Your task to perform on an android device: change the upload size in google photos Image 0: 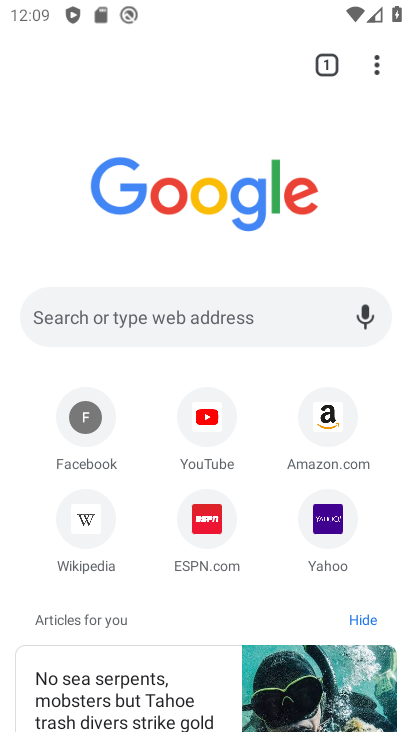
Step 0: press home button
Your task to perform on an android device: change the upload size in google photos Image 1: 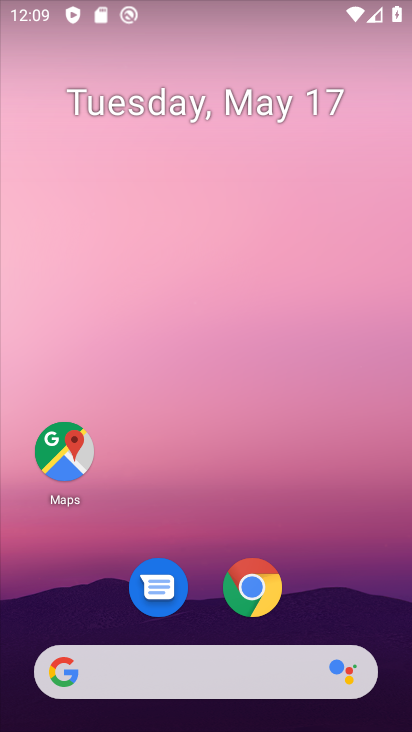
Step 1: drag from (201, 621) to (215, 40)
Your task to perform on an android device: change the upload size in google photos Image 2: 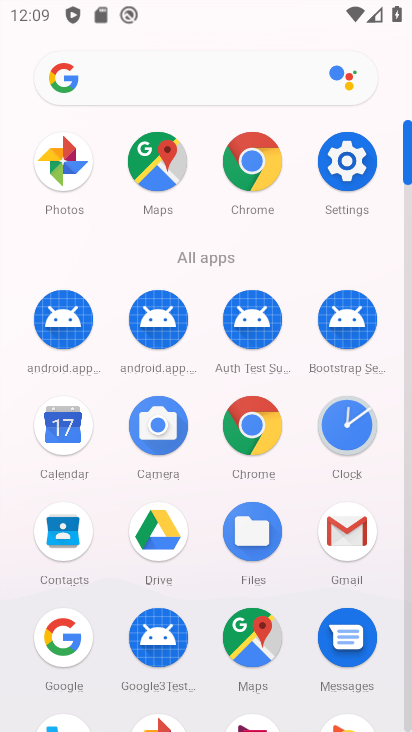
Step 2: drag from (204, 612) to (246, 234)
Your task to perform on an android device: change the upload size in google photos Image 3: 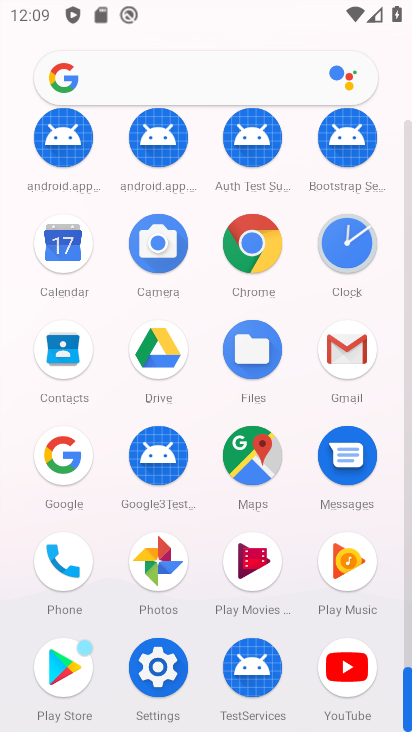
Step 3: click (175, 576)
Your task to perform on an android device: change the upload size in google photos Image 4: 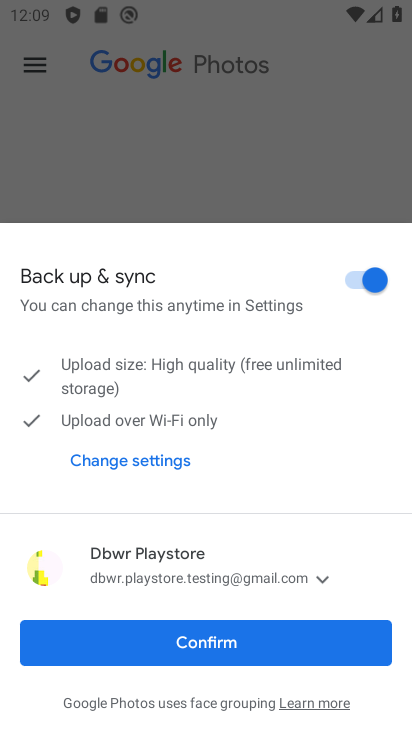
Step 4: click (197, 643)
Your task to perform on an android device: change the upload size in google photos Image 5: 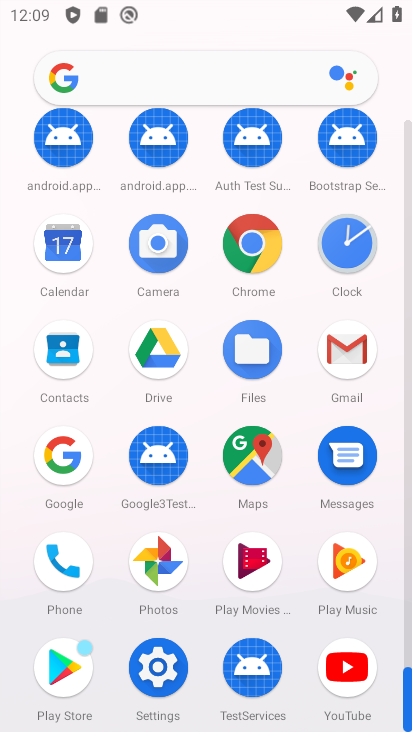
Step 5: click (152, 567)
Your task to perform on an android device: change the upload size in google photos Image 6: 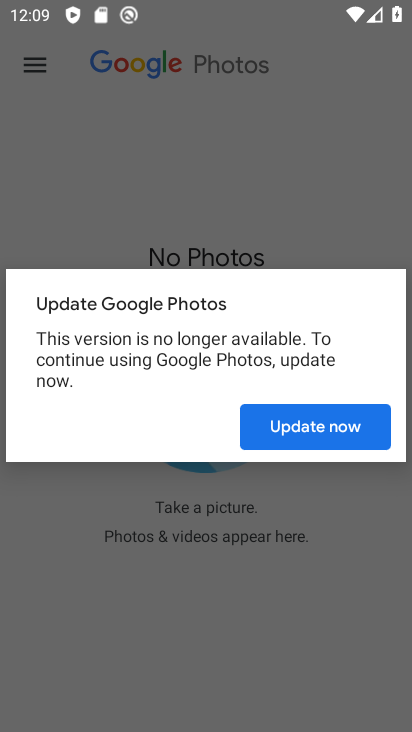
Step 6: click (259, 431)
Your task to perform on an android device: change the upload size in google photos Image 7: 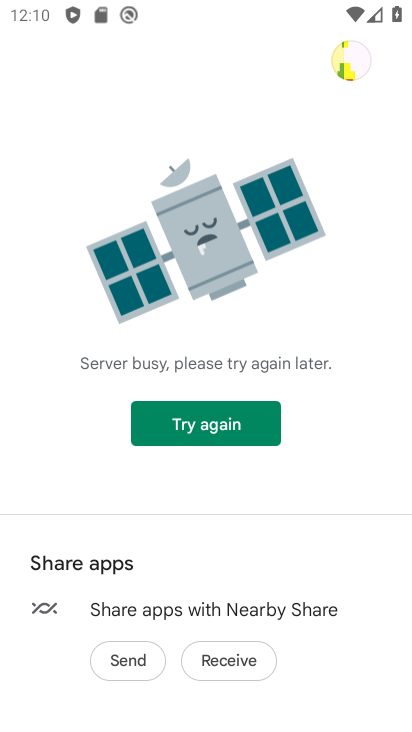
Step 7: click (232, 420)
Your task to perform on an android device: change the upload size in google photos Image 8: 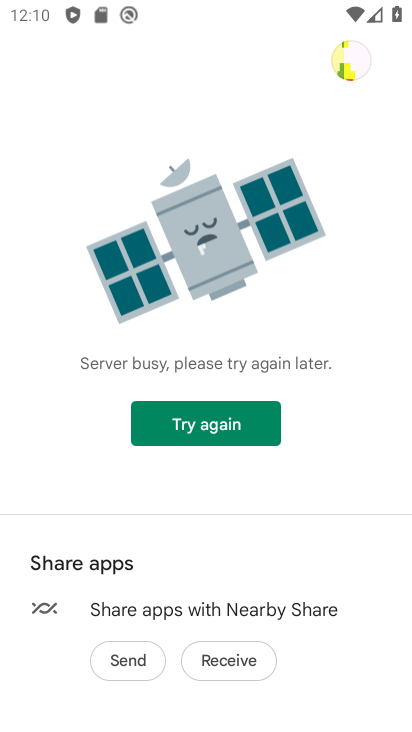
Step 8: press back button
Your task to perform on an android device: change the upload size in google photos Image 9: 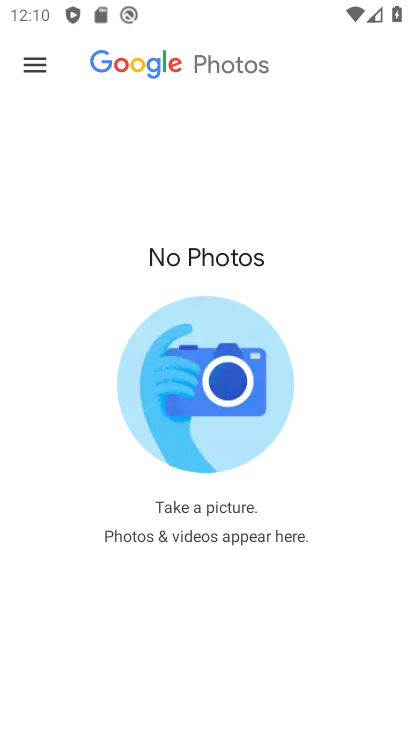
Step 9: click (25, 62)
Your task to perform on an android device: change the upload size in google photos Image 10: 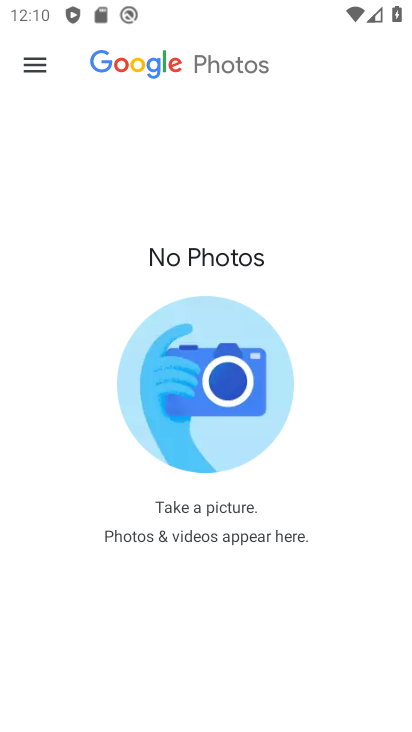
Step 10: click (31, 69)
Your task to perform on an android device: change the upload size in google photos Image 11: 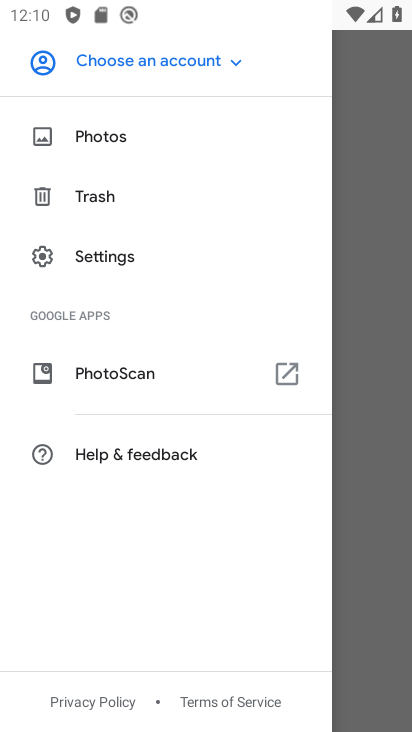
Step 11: click (111, 261)
Your task to perform on an android device: change the upload size in google photos Image 12: 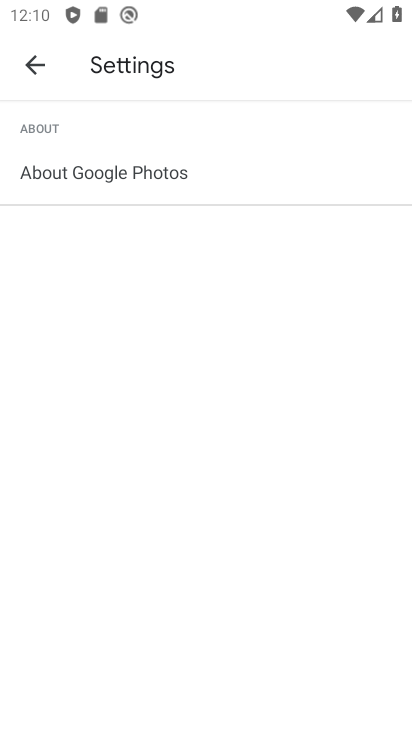
Step 12: click (33, 60)
Your task to perform on an android device: change the upload size in google photos Image 13: 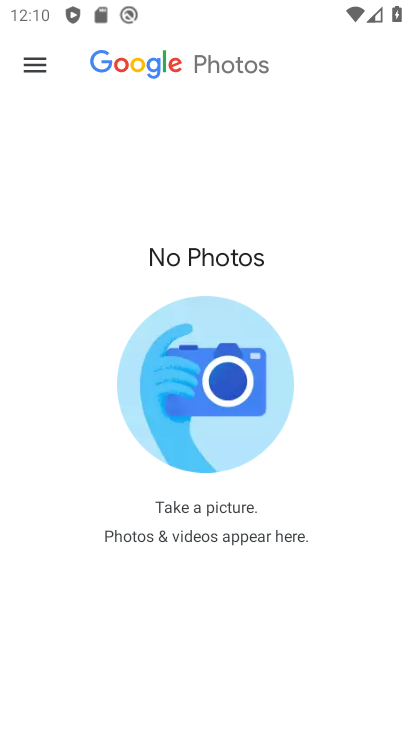
Step 13: click (33, 60)
Your task to perform on an android device: change the upload size in google photos Image 14: 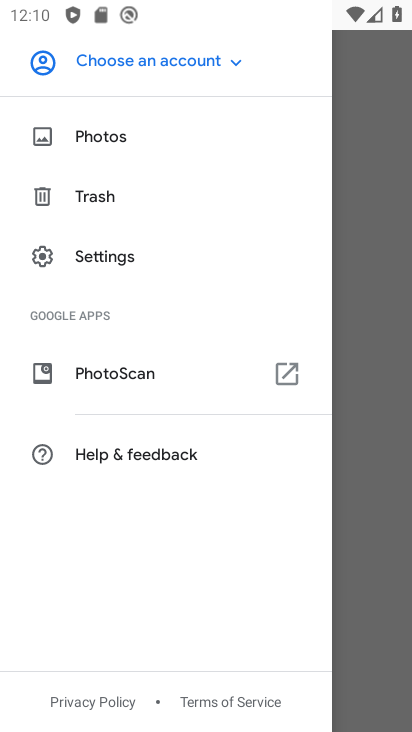
Step 14: click (138, 64)
Your task to perform on an android device: change the upload size in google photos Image 15: 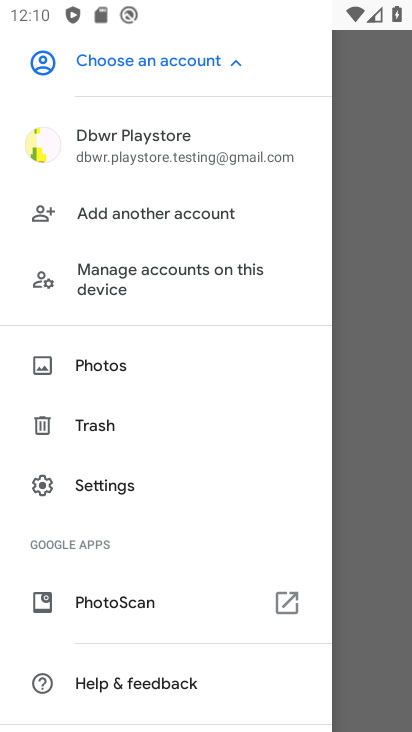
Step 15: click (126, 148)
Your task to perform on an android device: change the upload size in google photos Image 16: 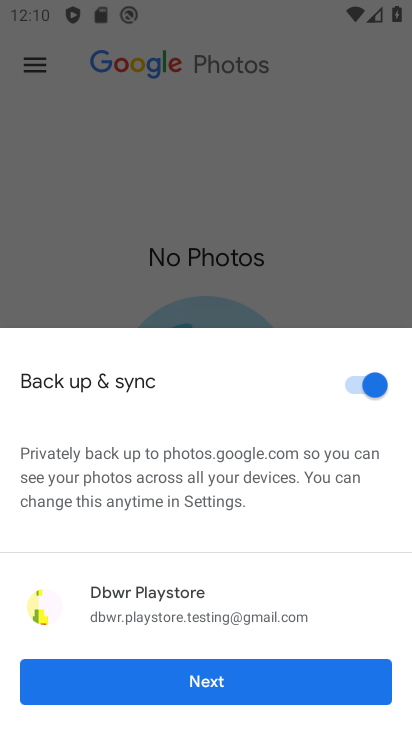
Step 16: click (186, 669)
Your task to perform on an android device: change the upload size in google photos Image 17: 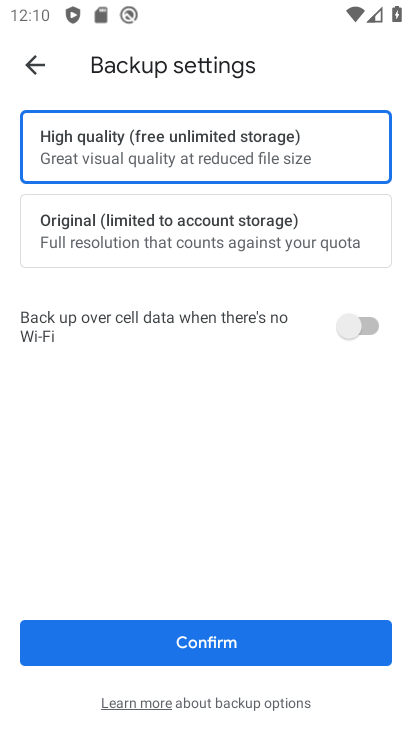
Step 17: click (191, 655)
Your task to perform on an android device: change the upload size in google photos Image 18: 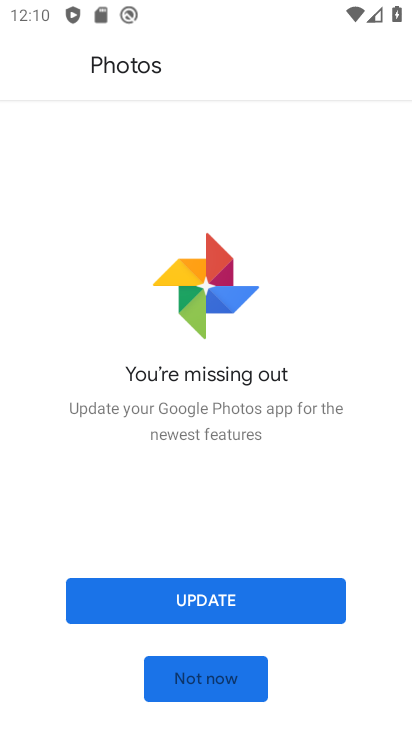
Step 18: click (239, 670)
Your task to perform on an android device: change the upload size in google photos Image 19: 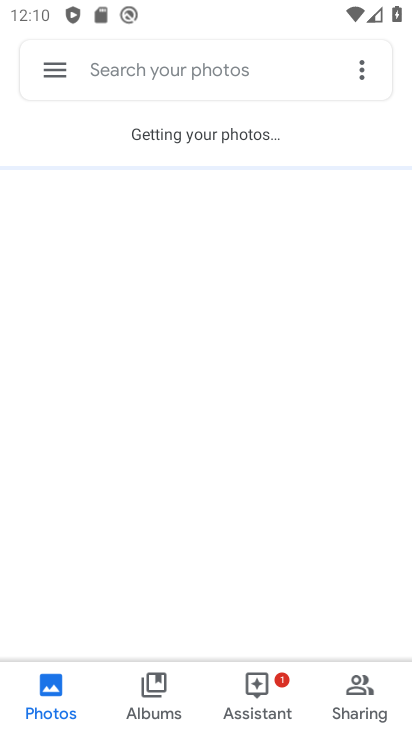
Step 19: task complete